Your task to perform on an android device: Go to Reddit.com Image 0: 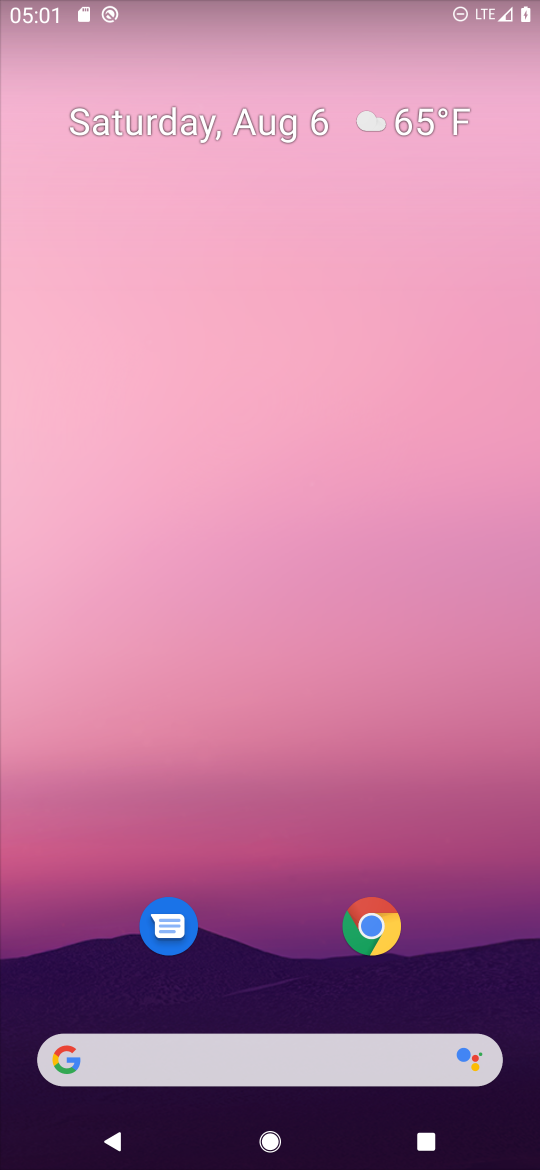
Step 0: click (391, 931)
Your task to perform on an android device: Go to Reddit.com Image 1: 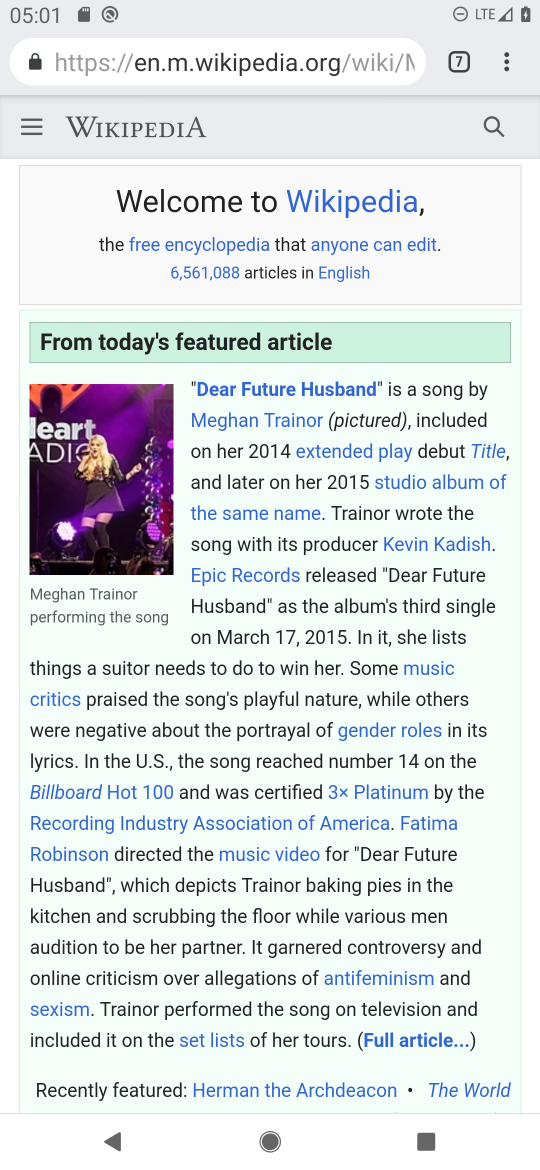
Step 1: click (461, 66)
Your task to perform on an android device: Go to Reddit.com Image 2: 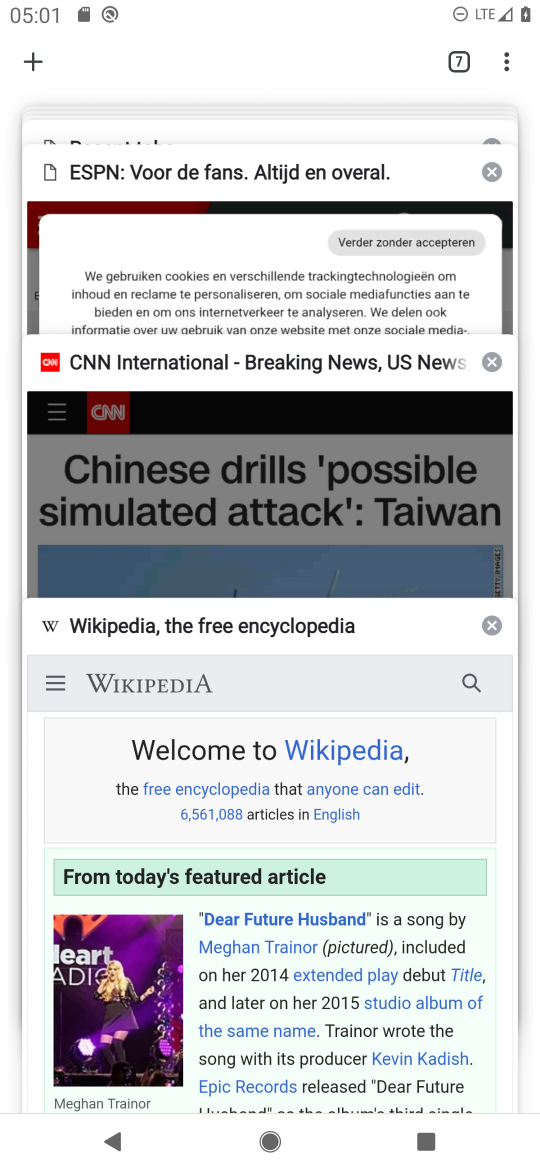
Step 2: click (42, 67)
Your task to perform on an android device: Go to Reddit.com Image 3: 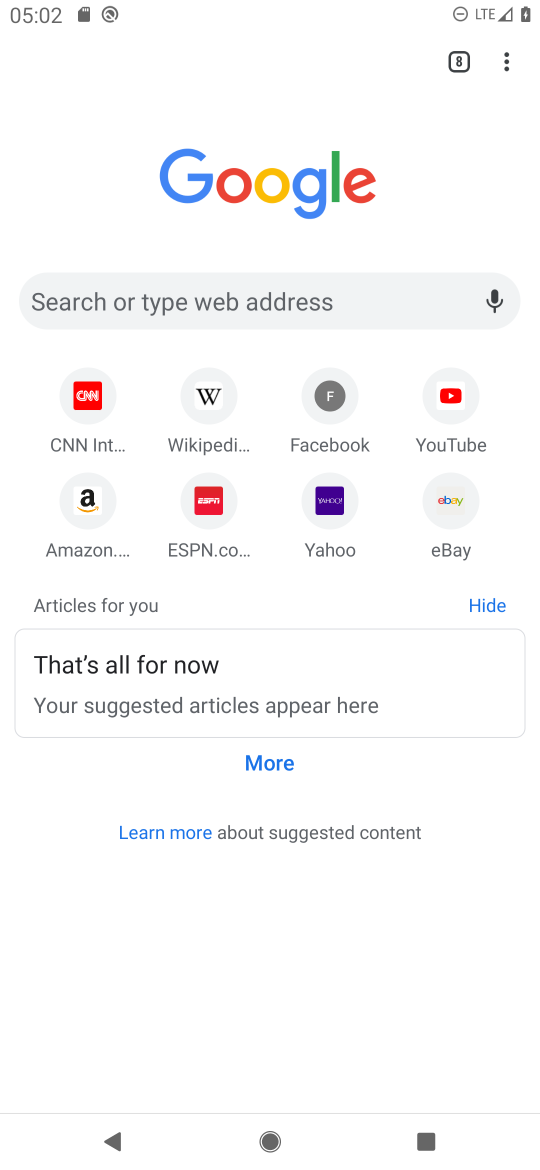
Step 3: click (179, 317)
Your task to perform on an android device: Go to Reddit.com Image 4: 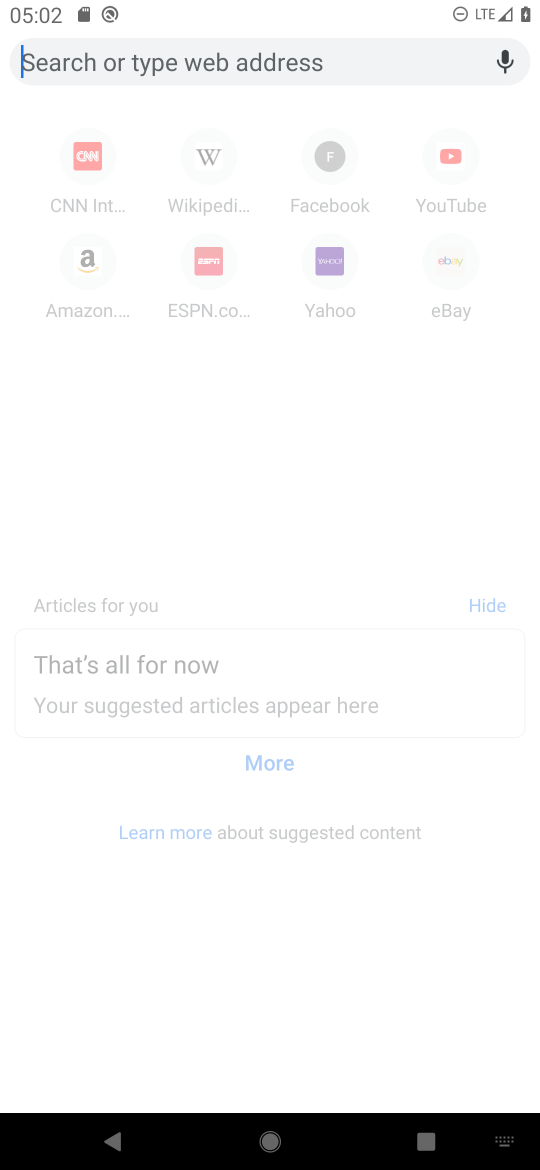
Step 4: type "Reddit.com"
Your task to perform on an android device: Go to Reddit.com Image 5: 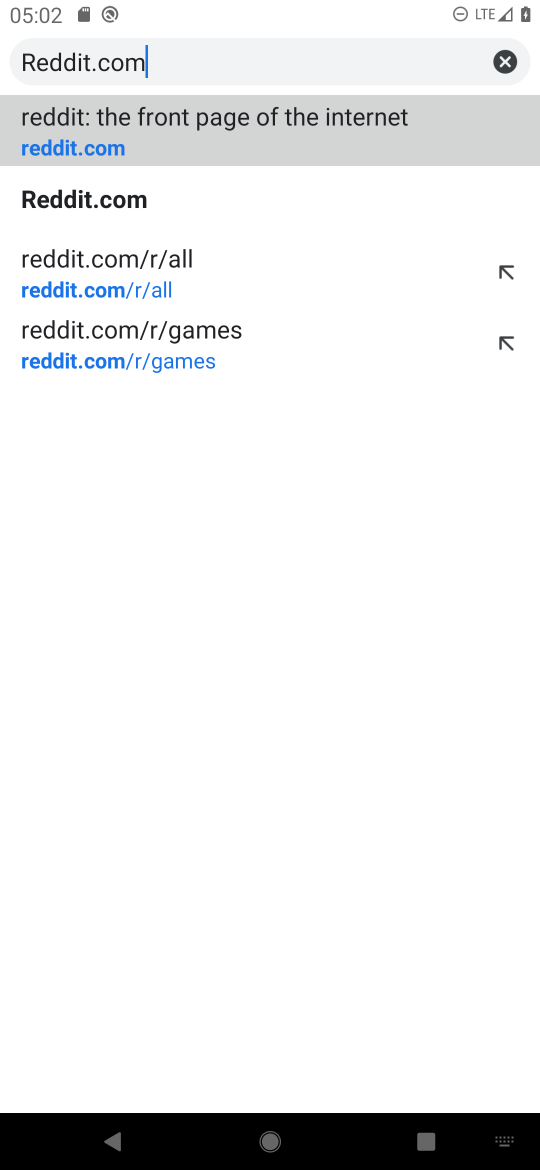
Step 5: type ""
Your task to perform on an android device: Go to Reddit.com Image 6: 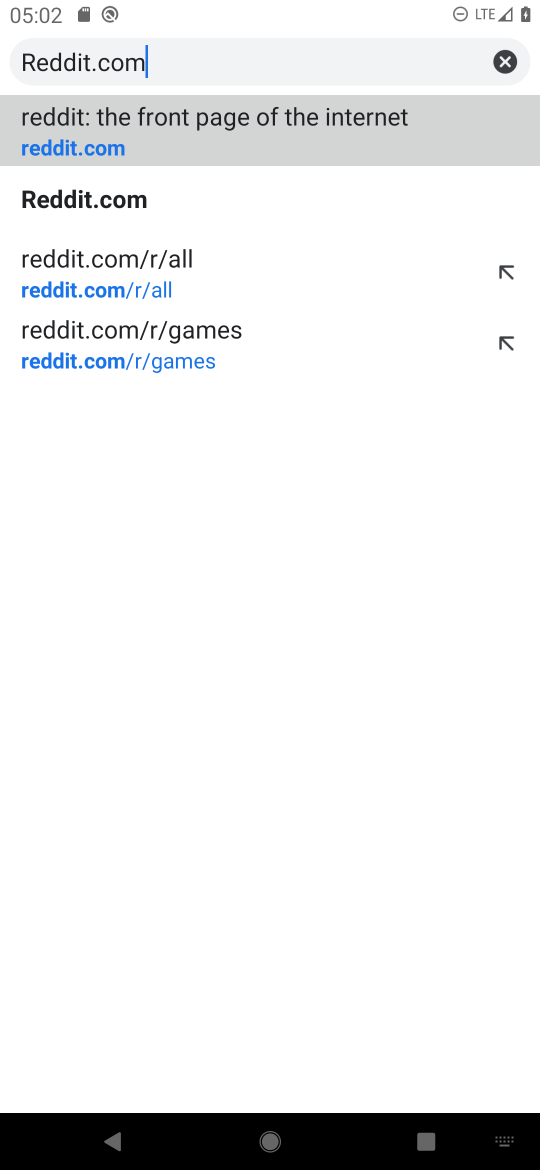
Step 6: click (75, 97)
Your task to perform on an android device: Go to Reddit.com Image 7: 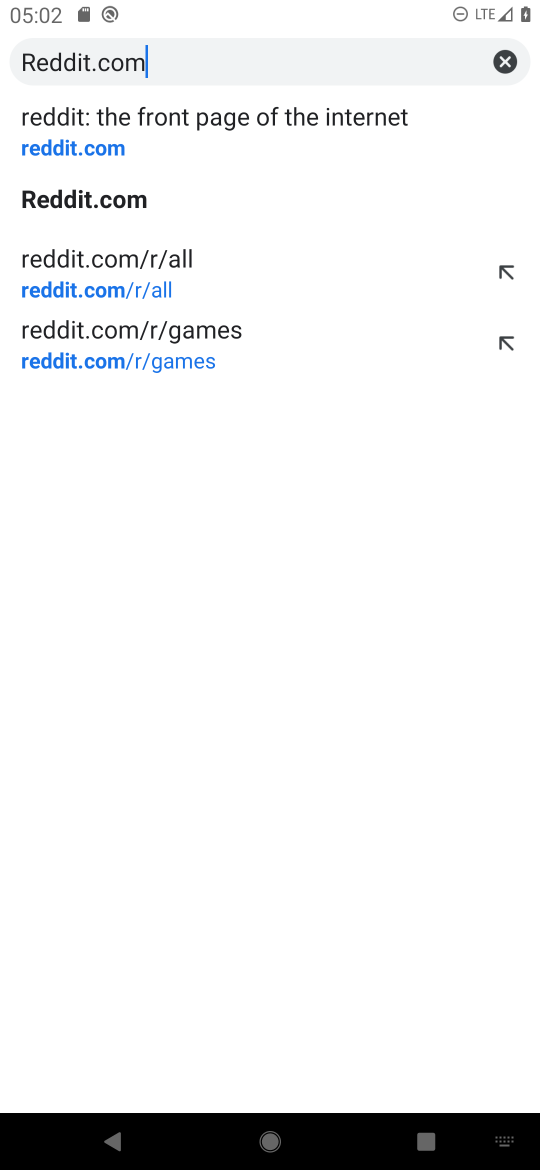
Step 7: click (140, 112)
Your task to perform on an android device: Go to Reddit.com Image 8: 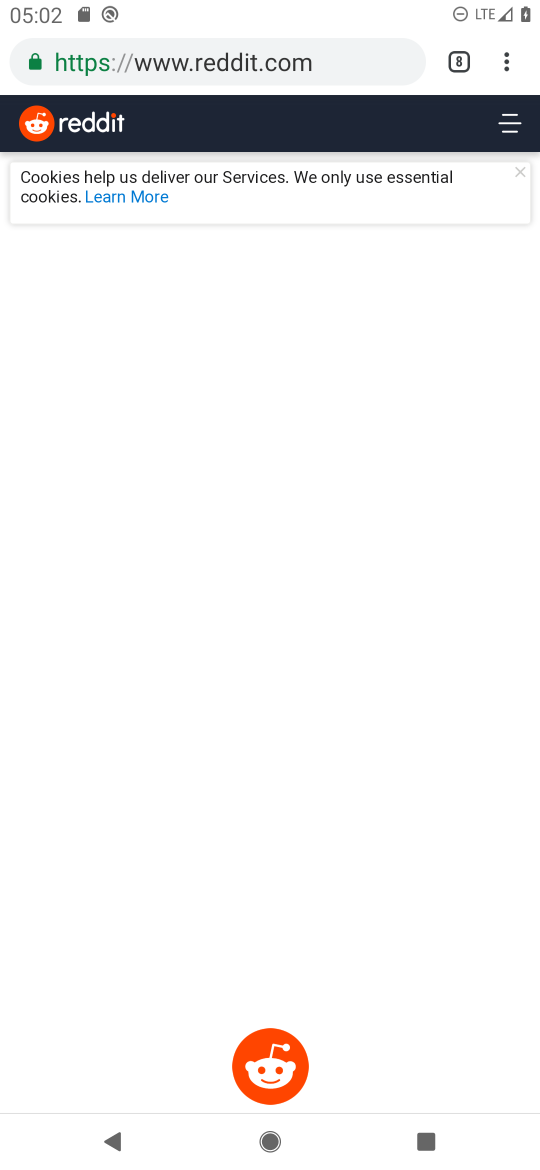
Step 8: task complete